Your task to perform on an android device: Search for amazon basics triple a on amazon, select the first entry, and add it to the cart. Image 0: 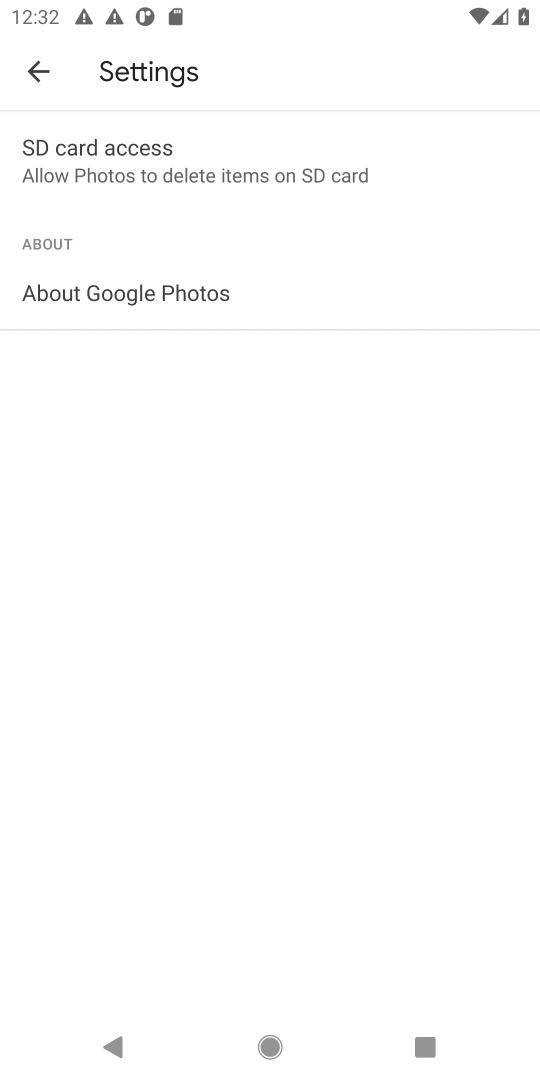
Step 0: press home button
Your task to perform on an android device: Search for amazon basics triple a on amazon, select the first entry, and add it to the cart. Image 1: 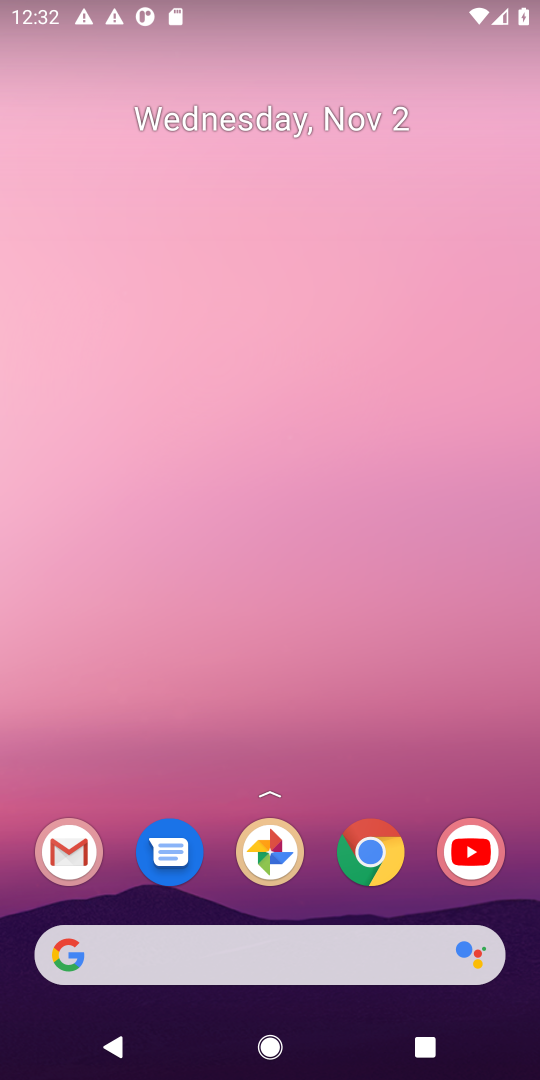
Step 1: click (68, 958)
Your task to perform on an android device: Search for amazon basics triple a on amazon, select the first entry, and add it to the cart. Image 2: 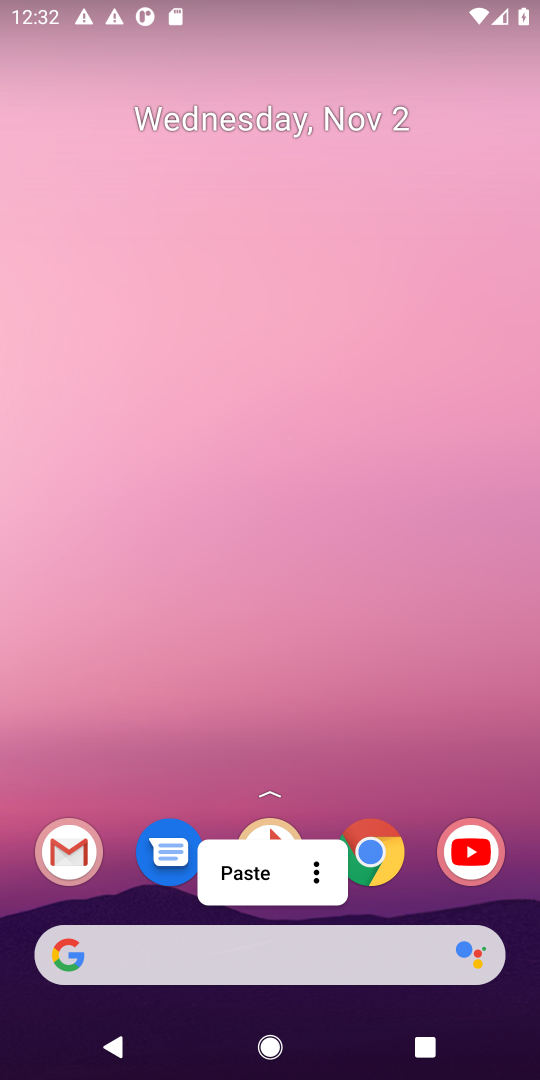
Step 2: click (58, 961)
Your task to perform on an android device: Search for amazon basics triple a on amazon, select the first entry, and add it to the cart. Image 3: 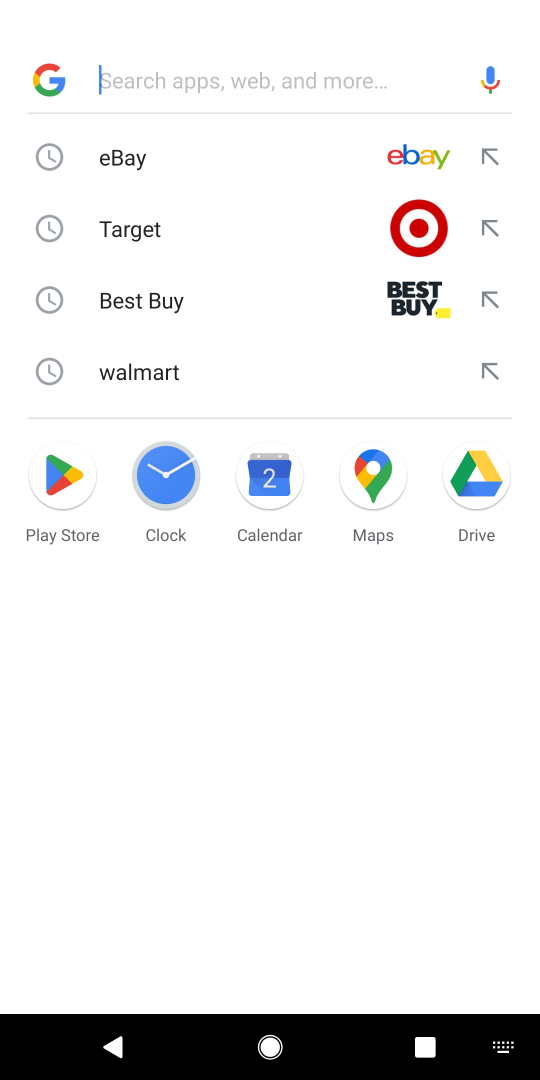
Step 3: type " amazon"
Your task to perform on an android device: Search for amazon basics triple a on amazon, select the first entry, and add it to the cart. Image 4: 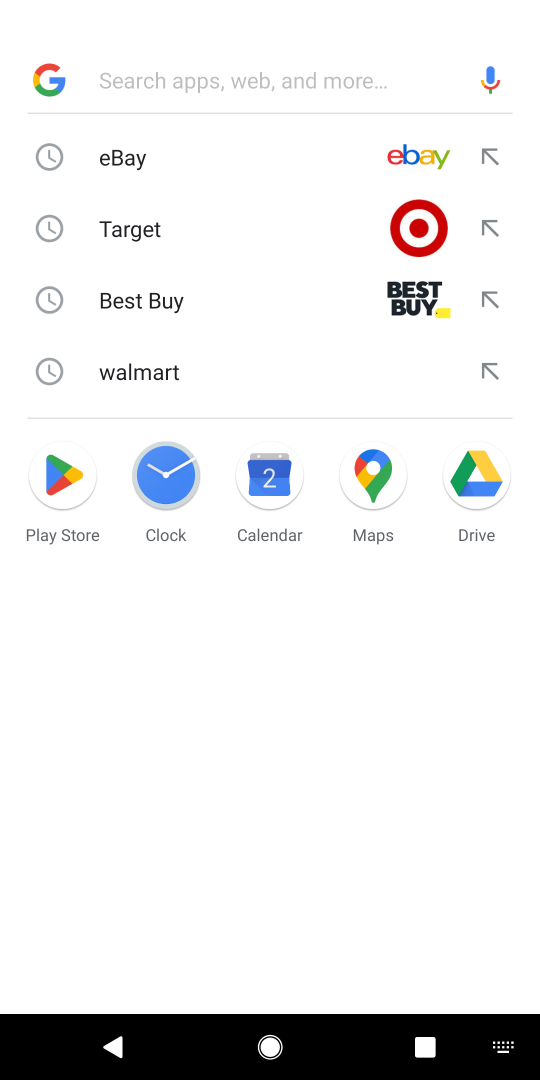
Step 4: click (122, 80)
Your task to perform on an android device: Search for amazon basics triple a on amazon, select the first entry, and add it to the cart. Image 5: 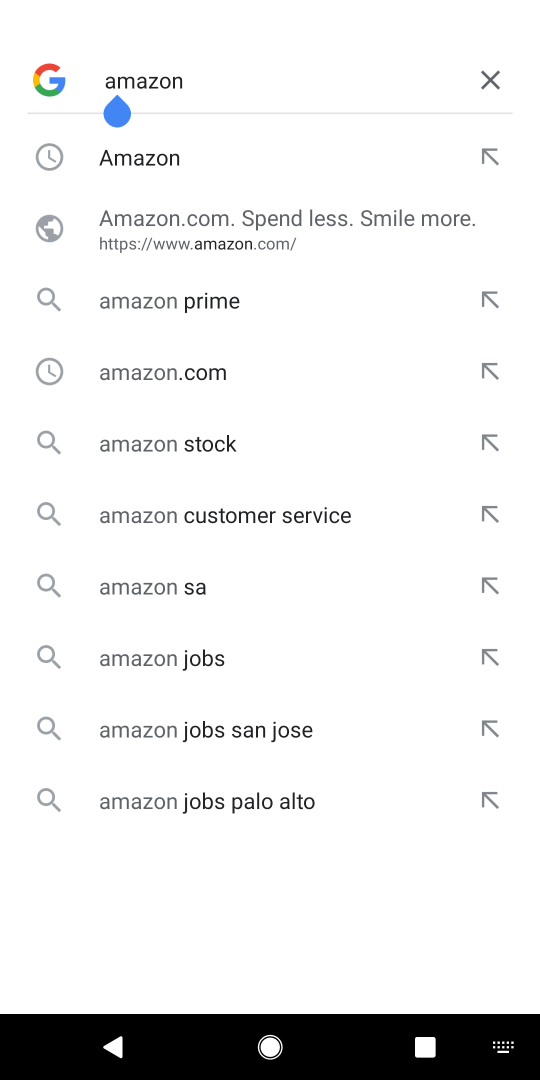
Step 5: press enter
Your task to perform on an android device: Search for amazon basics triple a on amazon, select the first entry, and add it to the cart. Image 6: 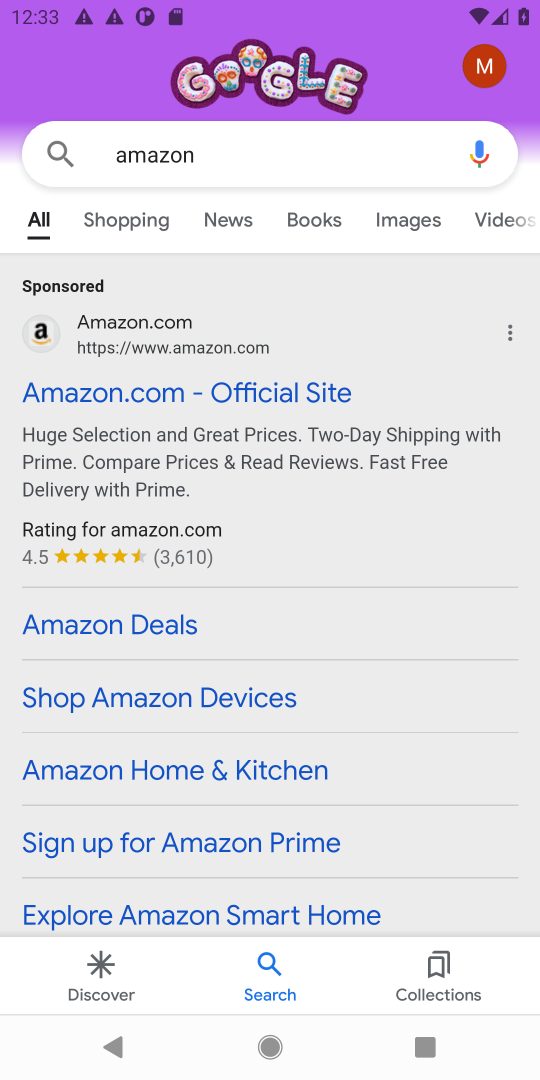
Step 6: click (179, 401)
Your task to perform on an android device: Search for amazon basics triple a on amazon, select the first entry, and add it to the cart. Image 7: 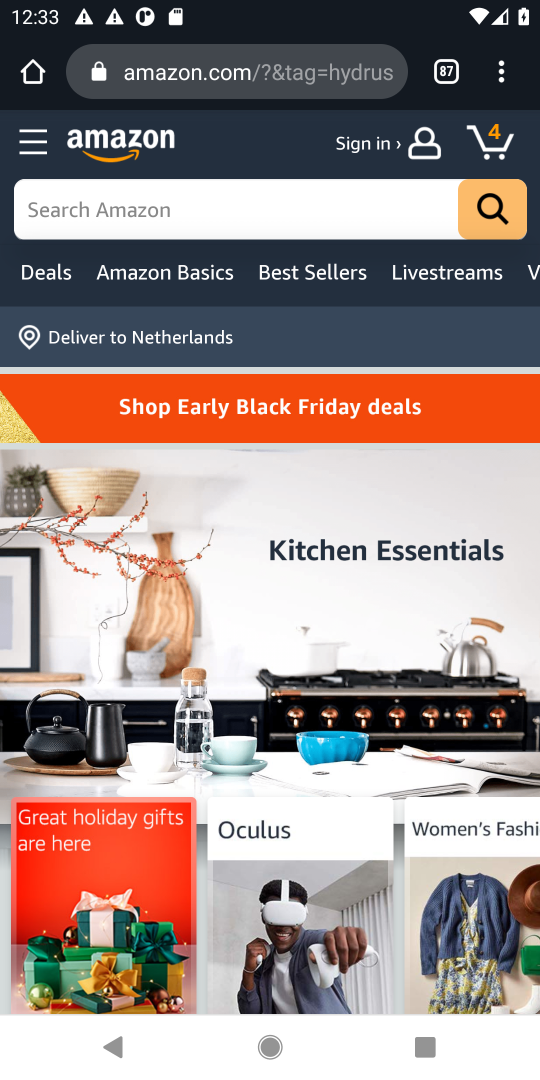
Step 7: click (168, 200)
Your task to perform on an android device: Search for amazon basics triple a on amazon, select the first entry, and add it to the cart. Image 8: 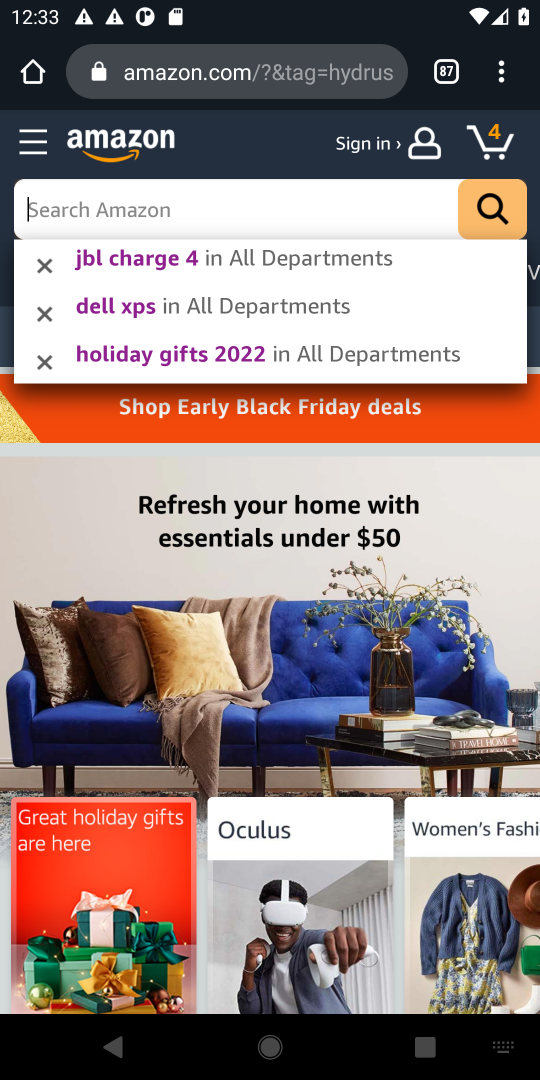
Step 8: type "amazon basics triple"
Your task to perform on an android device: Search for amazon basics triple a on amazon, select the first entry, and add it to the cart. Image 9: 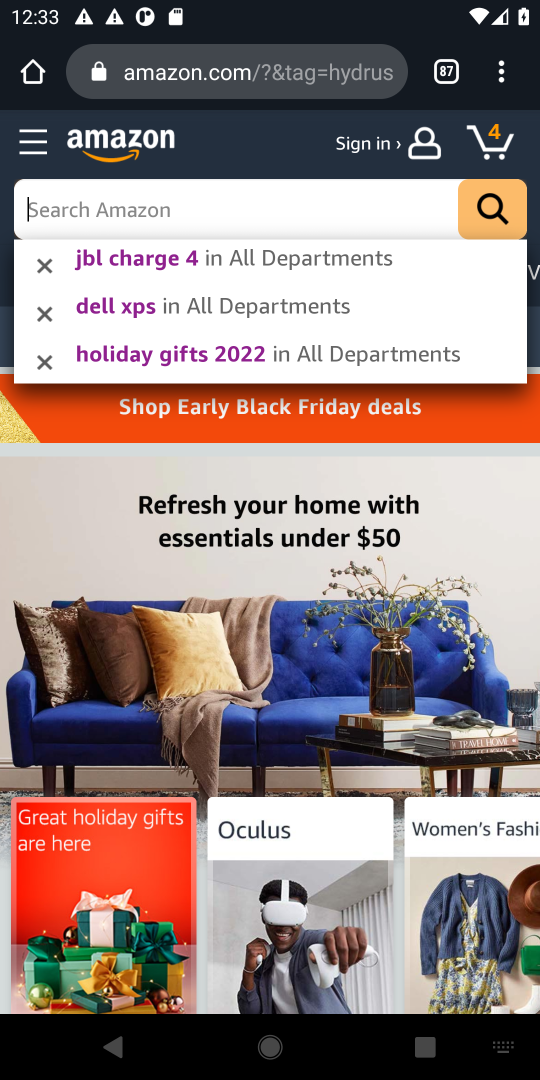
Step 9: click (110, 208)
Your task to perform on an android device: Search for amazon basics triple a on amazon, select the first entry, and add it to the cart. Image 10: 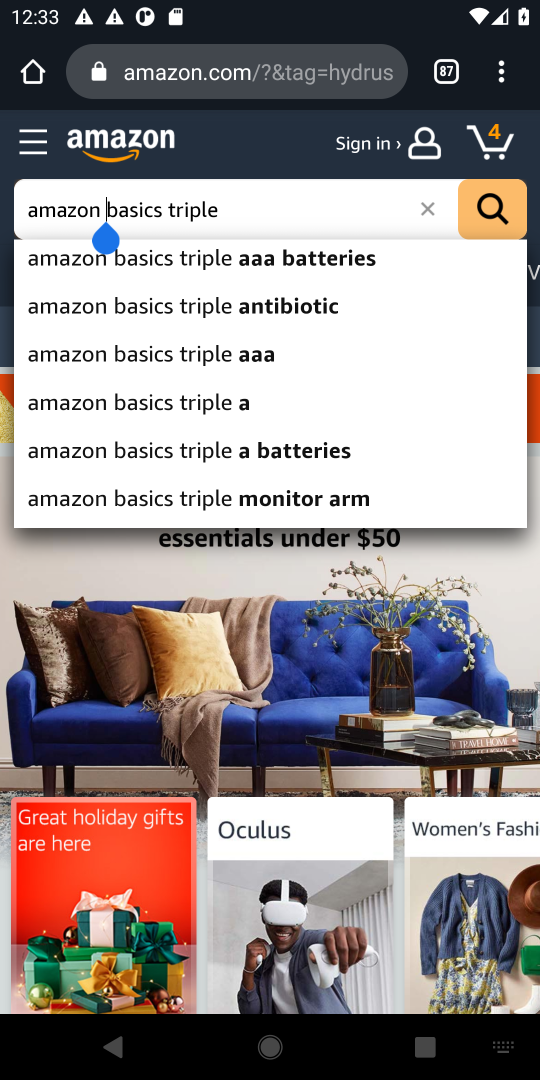
Step 10: press enter
Your task to perform on an android device: Search for amazon basics triple a on amazon, select the first entry, and add it to the cart. Image 11: 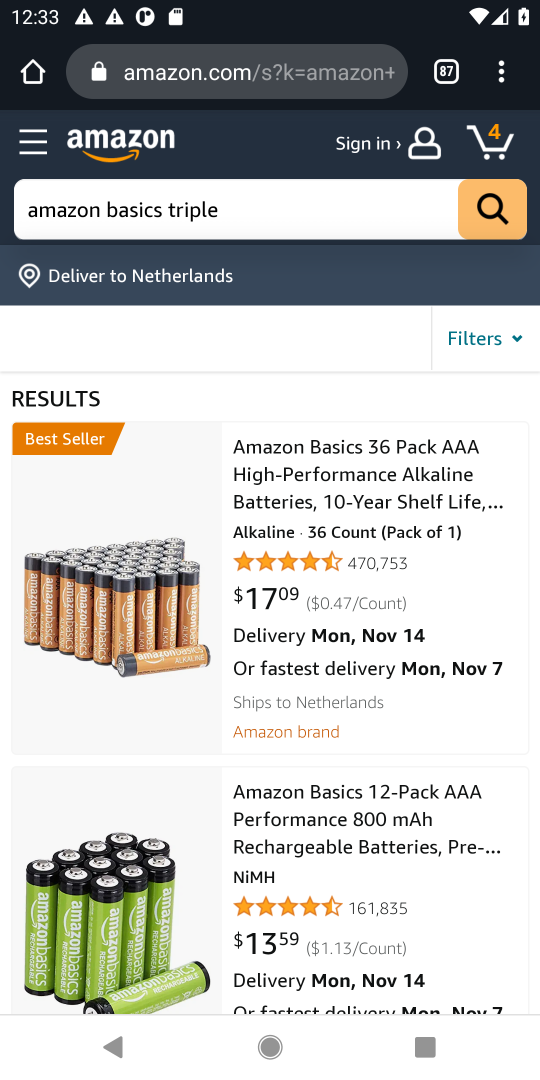
Step 11: click (402, 446)
Your task to perform on an android device: Search for amazon basics triple a on amazon, select the first entry, and add it to the cart. Image 12: 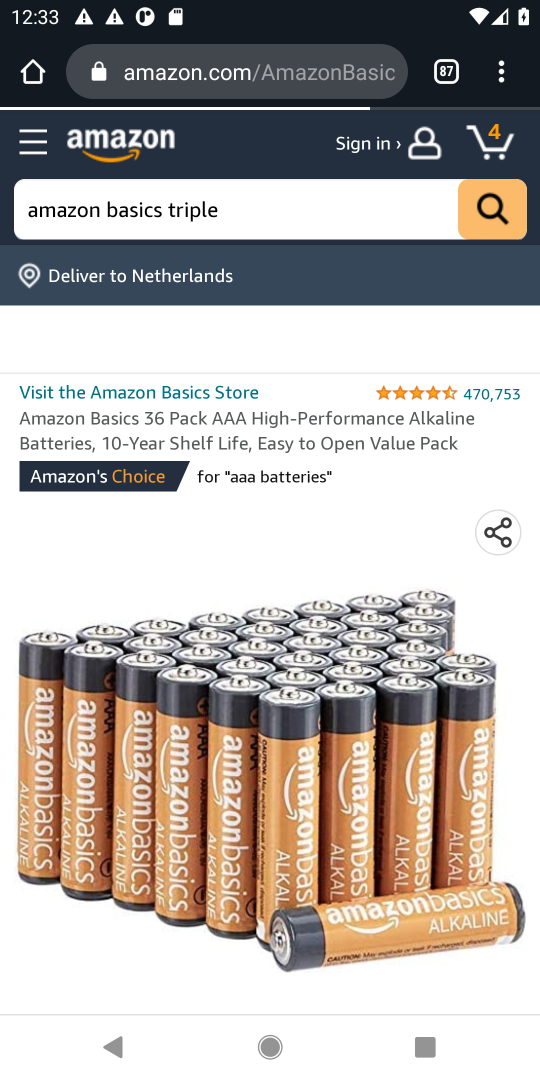
Step 12: click (375, 413)
Your task to perform on an android device: Search for amazon basics triple a on amazon, select the first entry, and add it to the cart. Image 13: 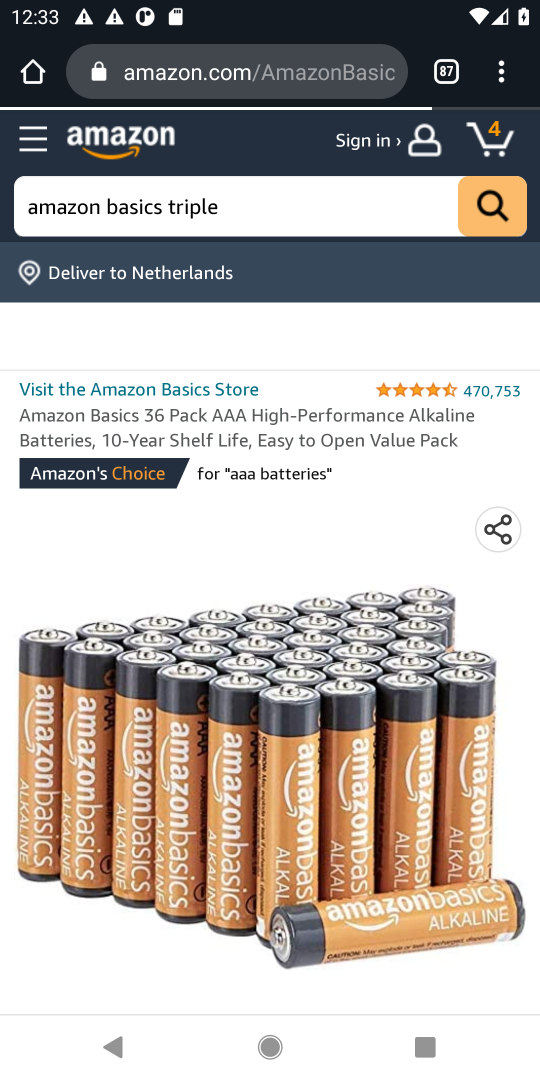
Step 13: drag from (310, 895) to (418, 347)
Your task to perform on an android device: Search for amazon basics triple a on amazon, select the first entry, and add it to the cart. Image 14: 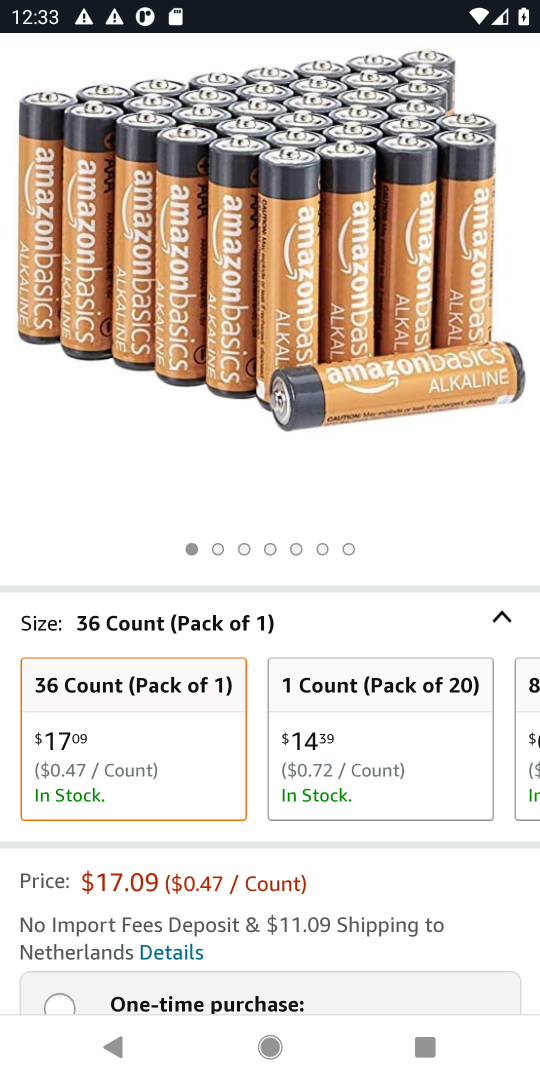
Step 14: drag from (372, 854) to (393, 389)
Your task to perform on an android device: Search for amazon basics triple a on amazon, select the first entry, and add it to the cart. Image 15: 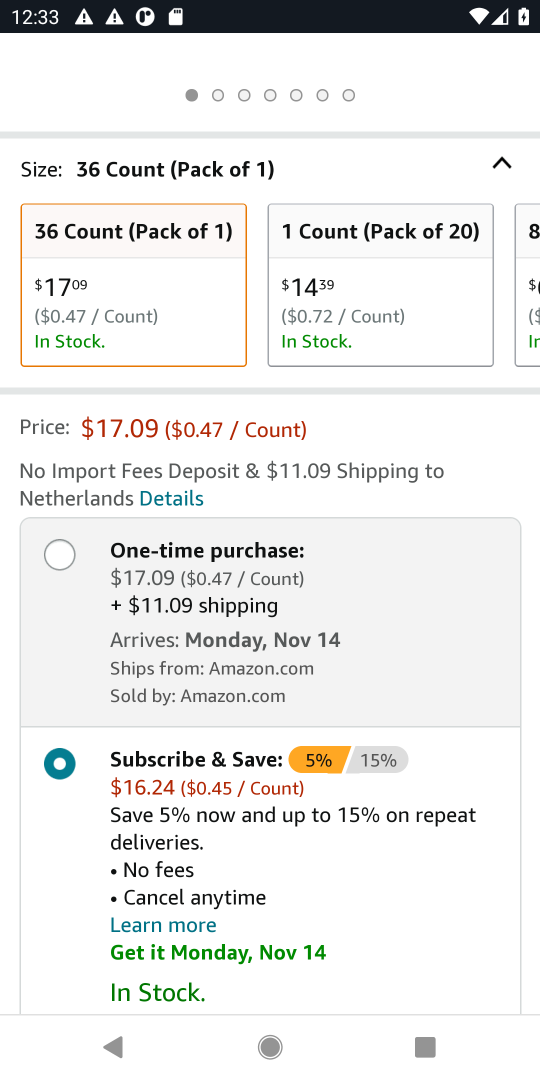
Step 15: drag from (366, 937) to (494, 433)
Your task to perform on an android device: Search for amazon basics triple a on amazon, select the first entry, and add it to the cart. Image 16: 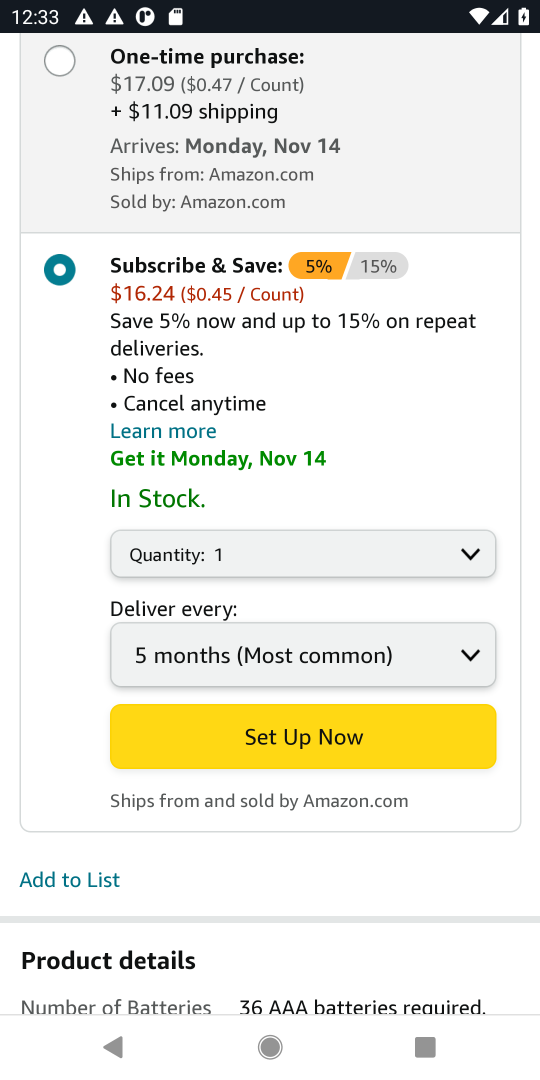
Step 16: drag from (453, 215) to (440, 569)
Your task to perform on an android device: Search for amazon basics triple a on amazon, select the first entry, and add it to the cart. Image 17: 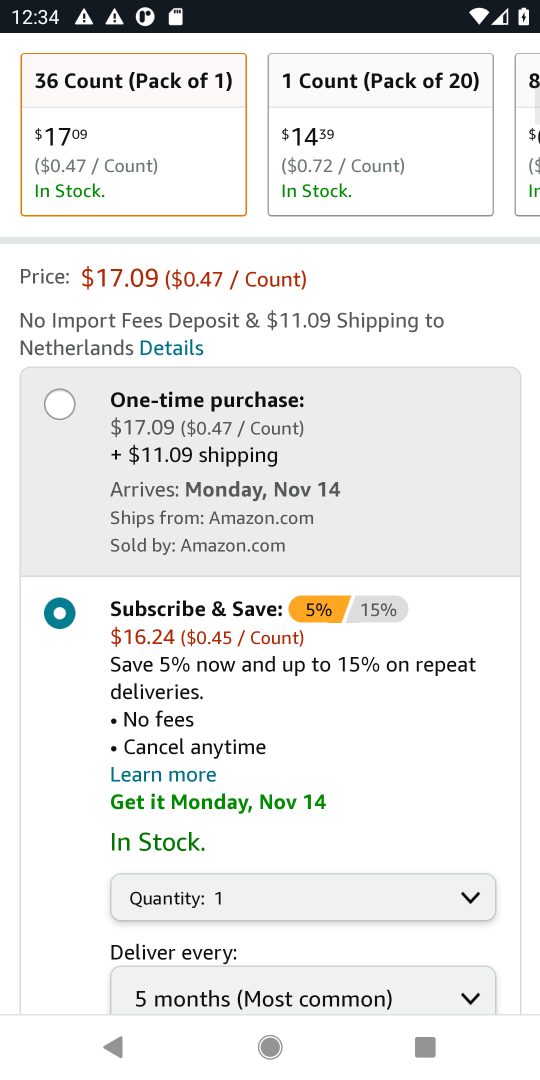
Step 17: click (54, 401)
Your task to perform on an android device: Search for amazon basics triple a on amazon, select the first entry, and add it to the cart. Image 18: 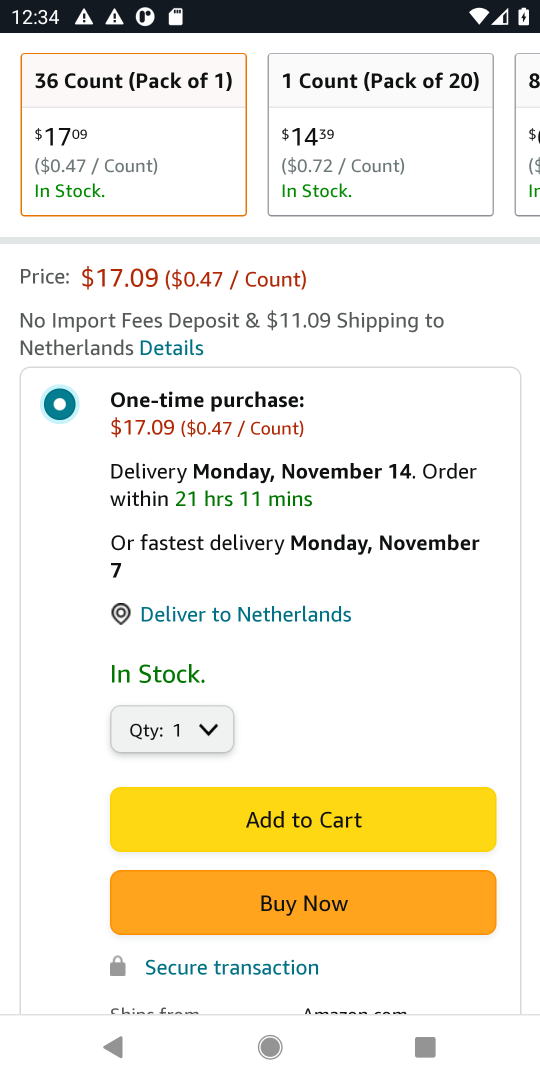
Step 18: click (334, 823)
Your task to perform on an android device: Search for amazon basics triple a on amazon, select the first entry, and add it to the cart. Image 19: 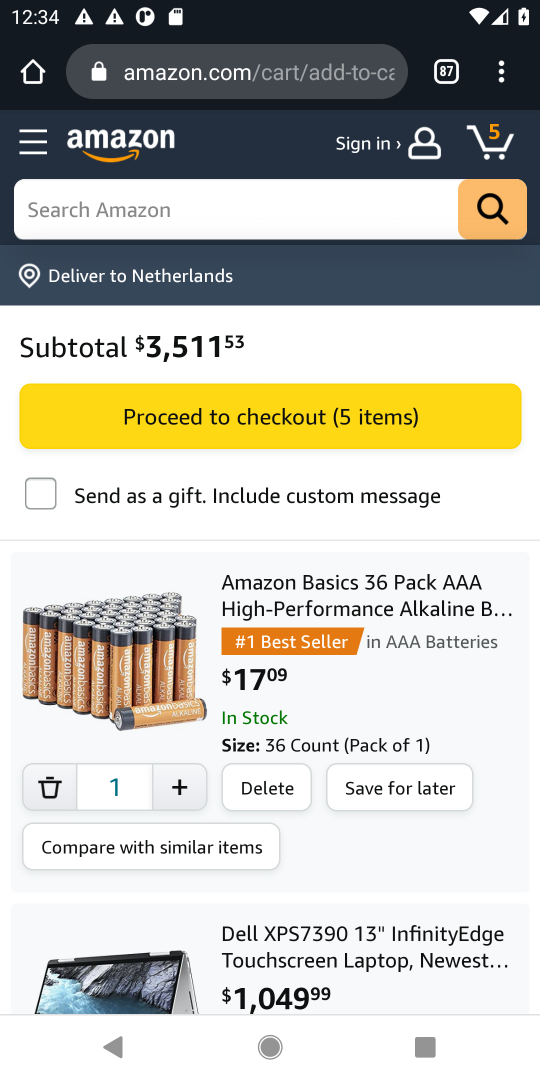
Step 19: task complete